Your task to perform on an android device: What is the recent news? Image 0: 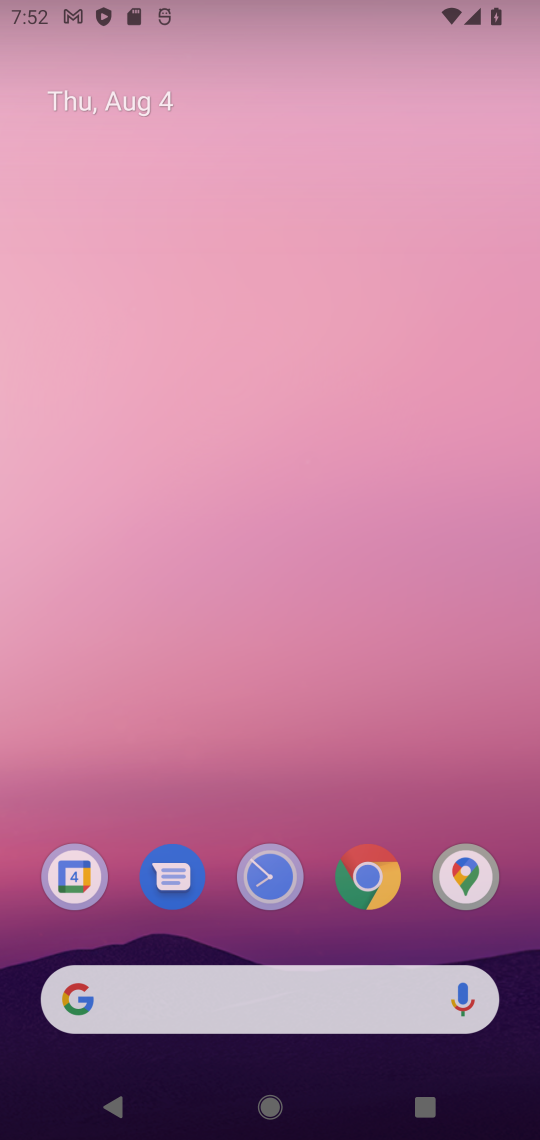
Step 0: press home button
Your task to perform on an android device: What is the recent news? Image 1: 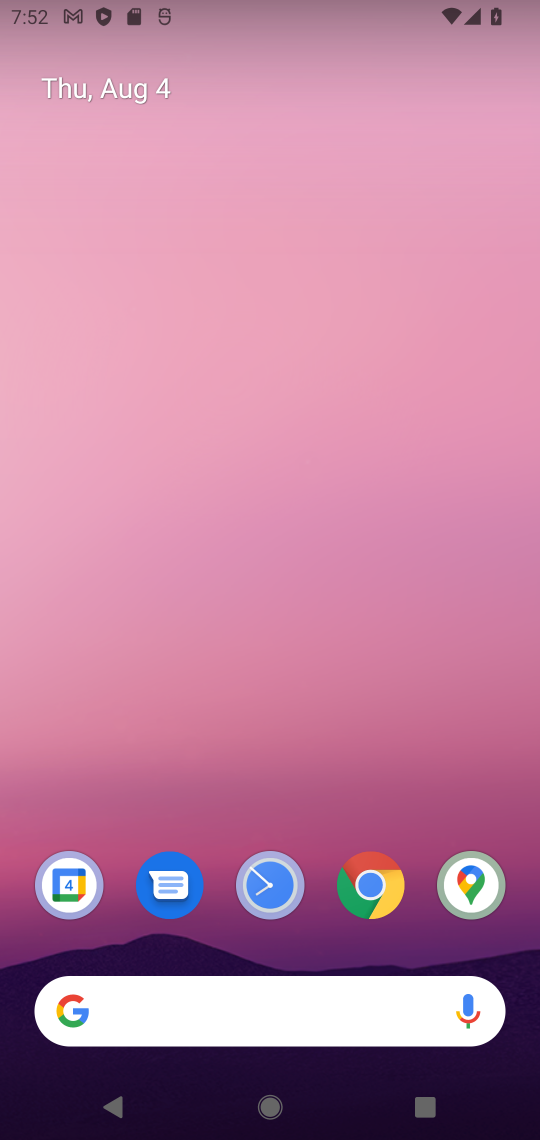
Step 1: drag from (105, 1122) to (114, 871)
Your task to perform on an android device: What is the recent news? Image 2: 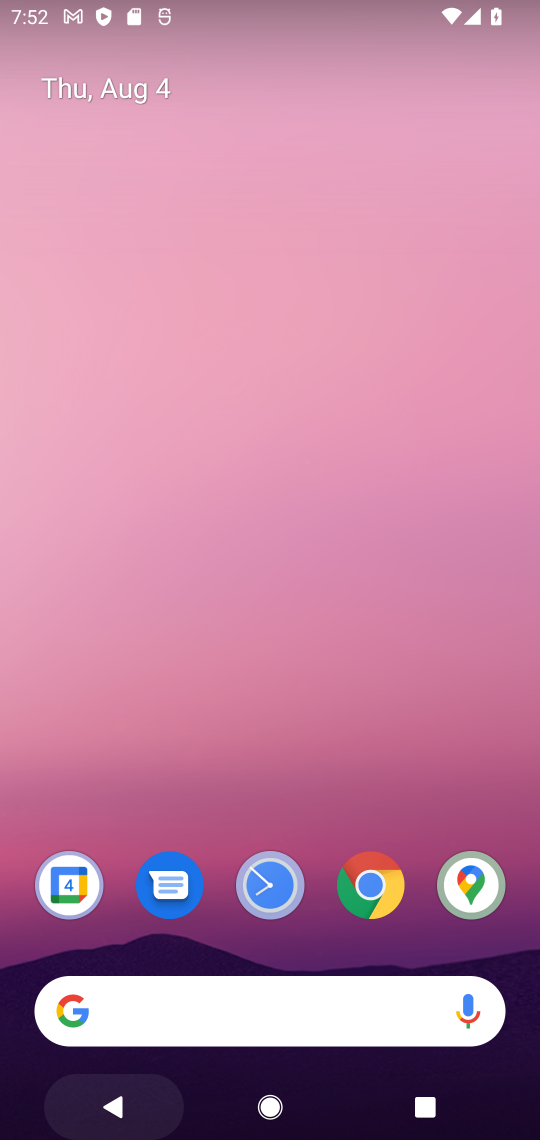
Step 2: click (398, 887)
Your task to perform on an android device: What is the recent news? Image 3: 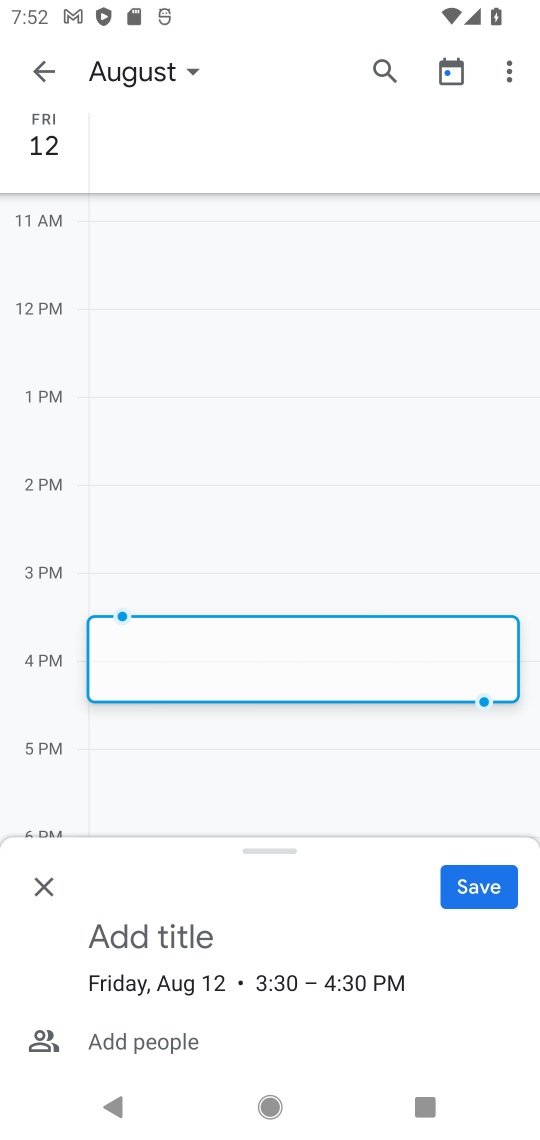
Step 3: press home button
Your task to perform on an android device: What is the recent news? Image 4: 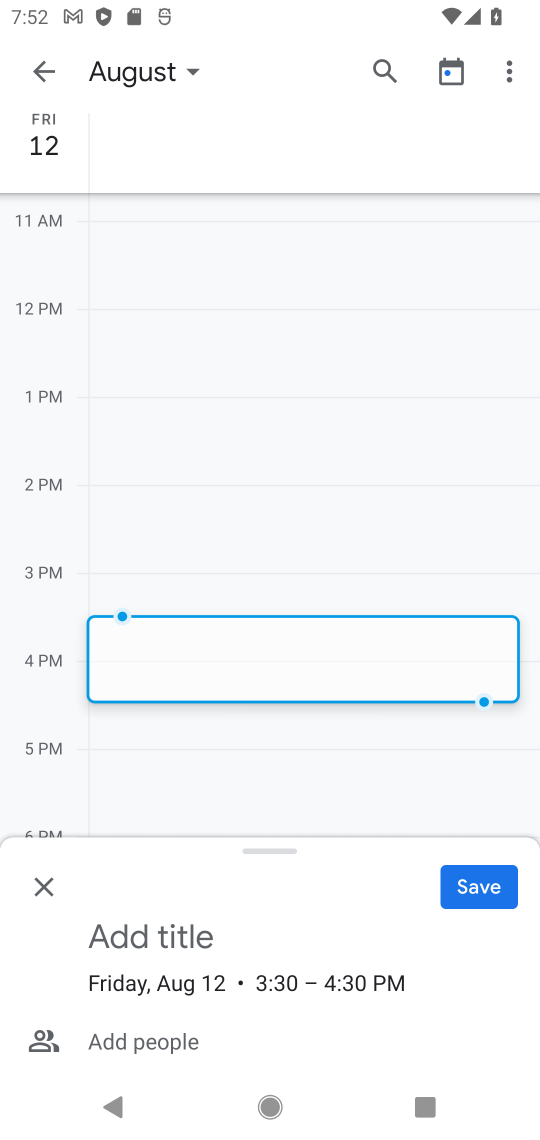
Step 4: press home button
Your task to perform on an android device: What is the recent news? Image 5: 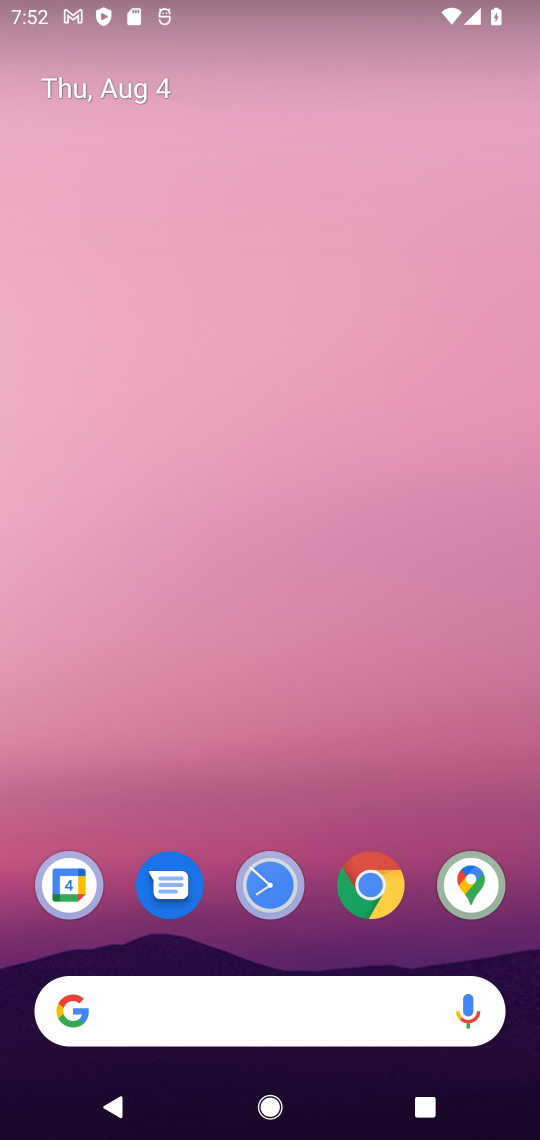
Step 5: click (368, 913)
Your task to perform on an android device: What is the recent news? Image 6: 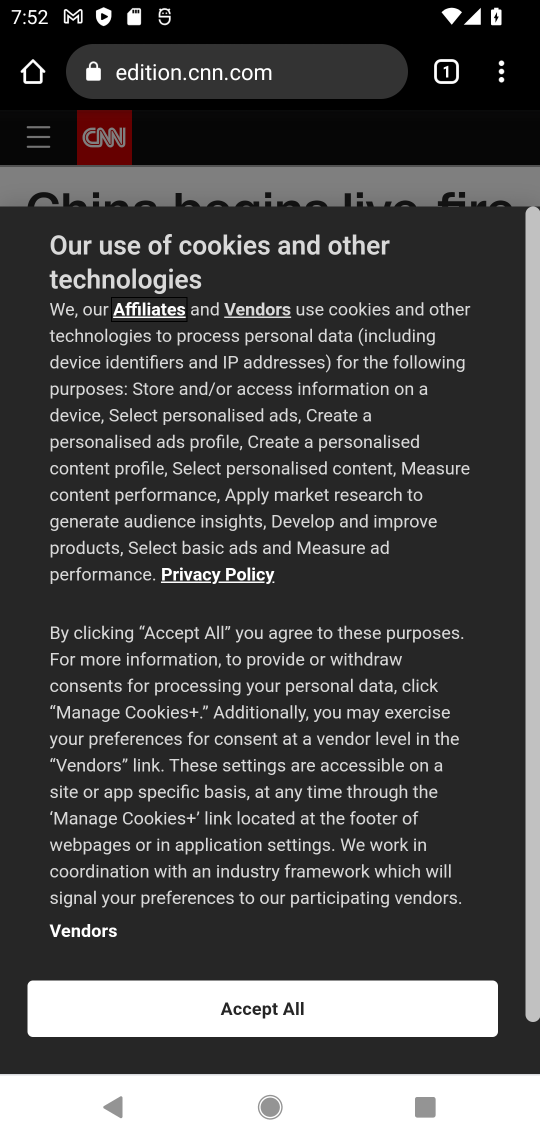
Step 6: click (149, 74)
Your task to perform on an android device: What is the recent news? Image 7: 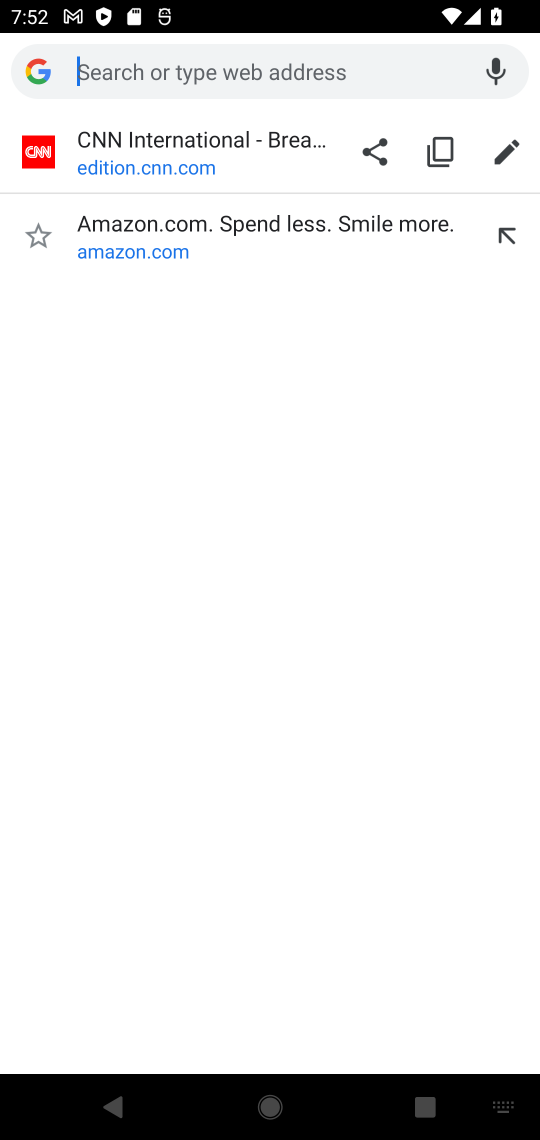
Step 7: type "What is the recent news?"
Your task to perform on an android device: What is the recent news? Image 8: 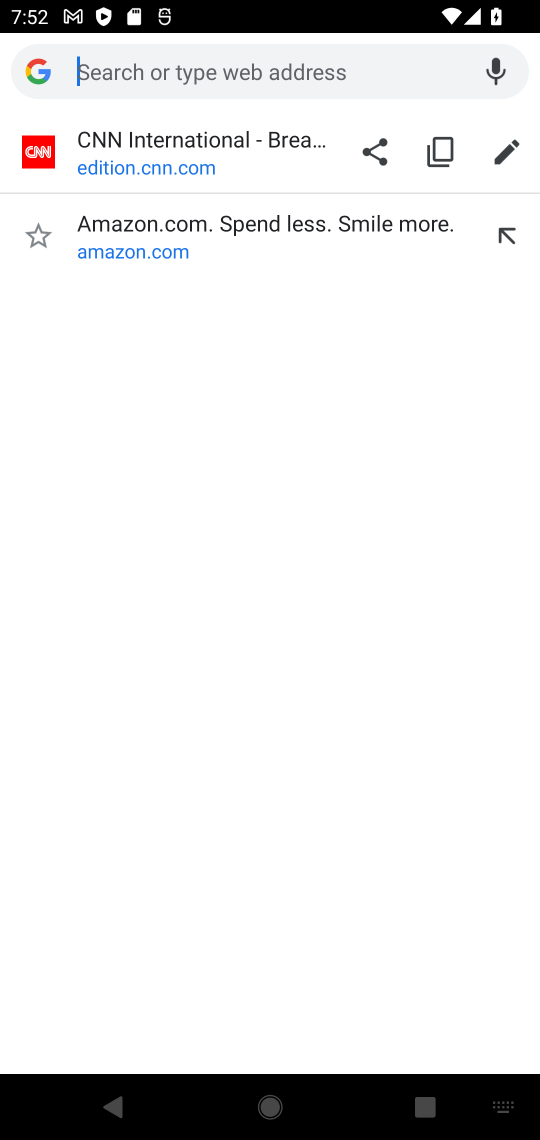
Step 8: click (93, 156)
Your task to perform on an android device: What is the recent news? Image 9: 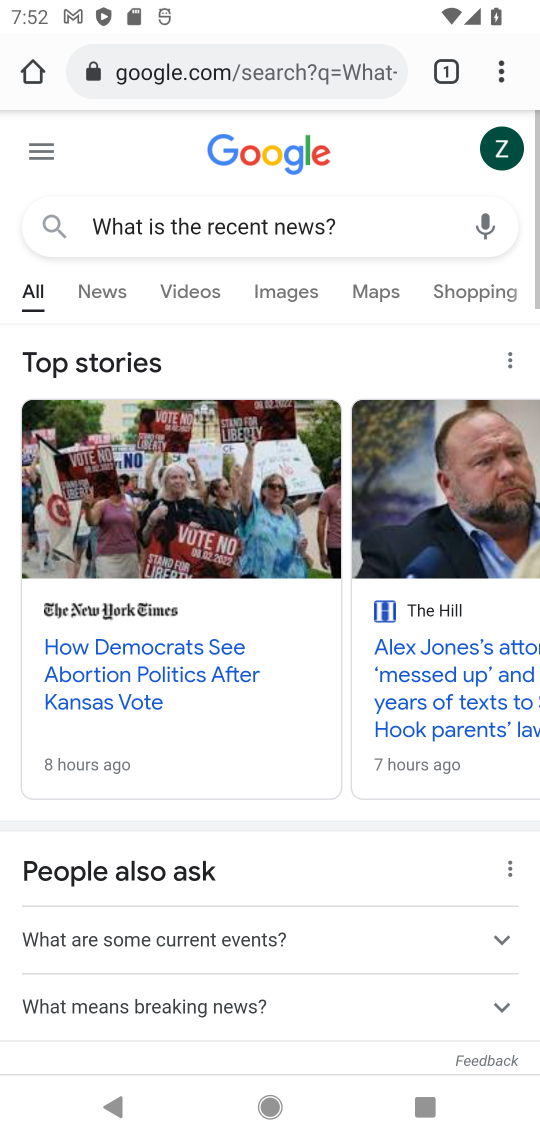
Step 9: task complete